Your task to perform on an android device: turn smart compose on in the gmail app Image 0: 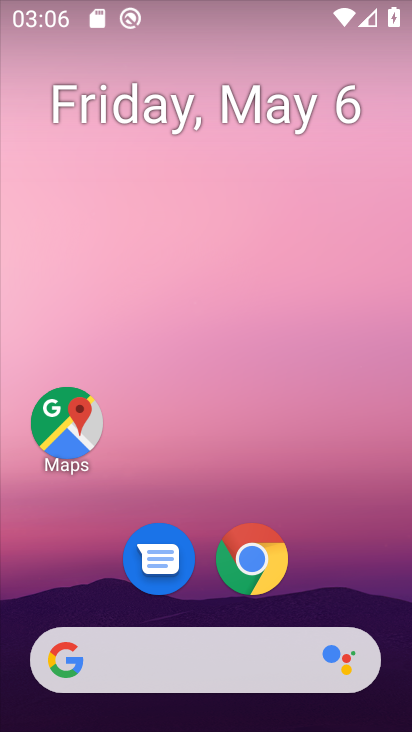
Step 0: drag from (365, 583) to (344, 64)
Your task to perform on an android device: turn smart compose on in the gmail app Image 1: 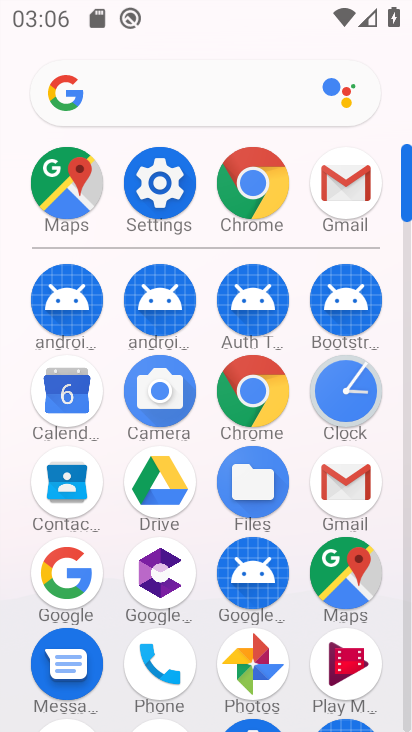
Step 1: click (343, 486)
Your task to perform on an android device: turn smart compose on in the gmail app Image 2: 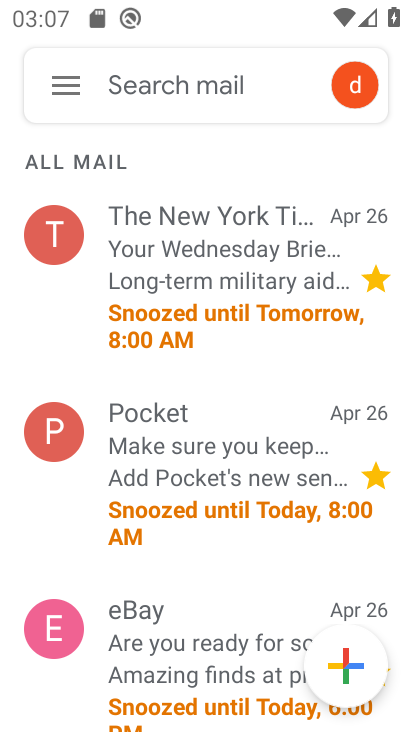
Step 2: click (49, 93)
Your task to perform on an android device: turn smart compose on in the gmail app Image 3: 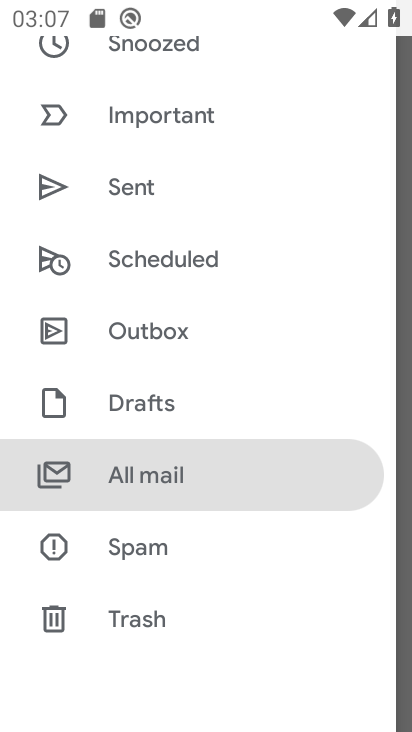
Step 3: drag from (107, 593) to (160, 96)
Your task to perform on an android device: turn smart compose on in the gmail app Image 4: 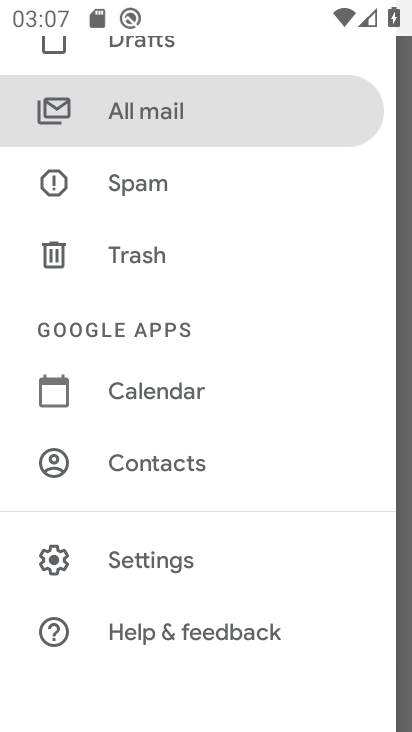
Step 4: click (164, 551)
Your task to perform on an android device: turn smart compose on in the gmail app Image 5: 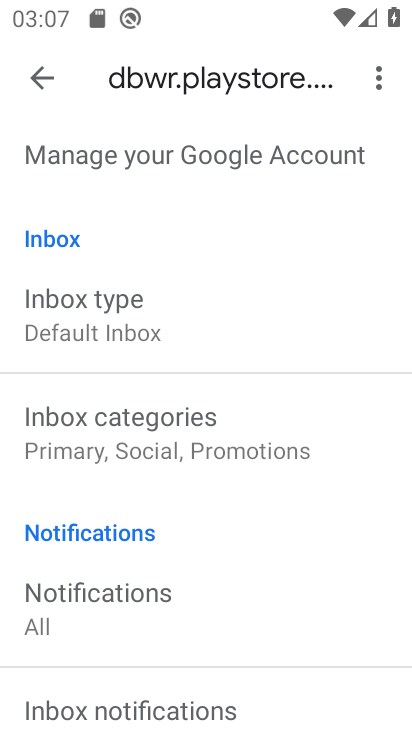
Step 5: task complete